Your task to perform on an android device: add a contact Image 0: 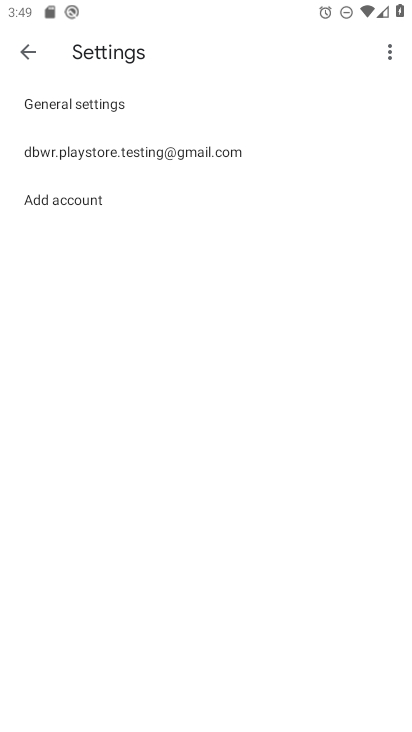
Step 0: press home button
Your task to perform on an android device: add a contact Image 1: 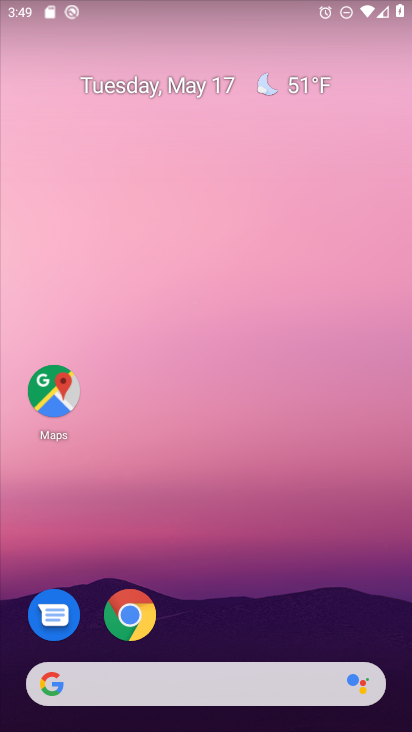
Step 1: drag from (212, 648) to (189, 149)
Your task to perform on an android device: add a contact Image 2: 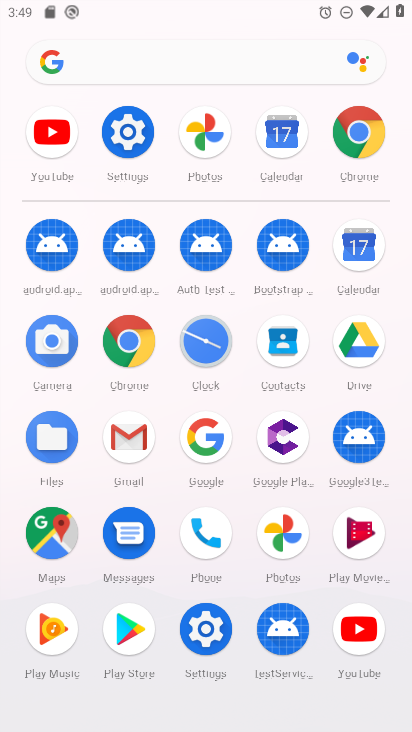
Step 2: click (279, 333)
Your task to perform on an android device: add a contact Image 3: 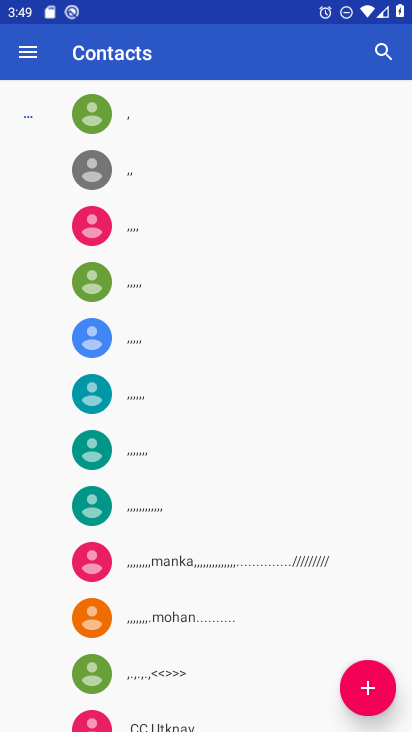
Step 3: click (366, 682)
Your task to perform on an android device: add a contact Image 4: 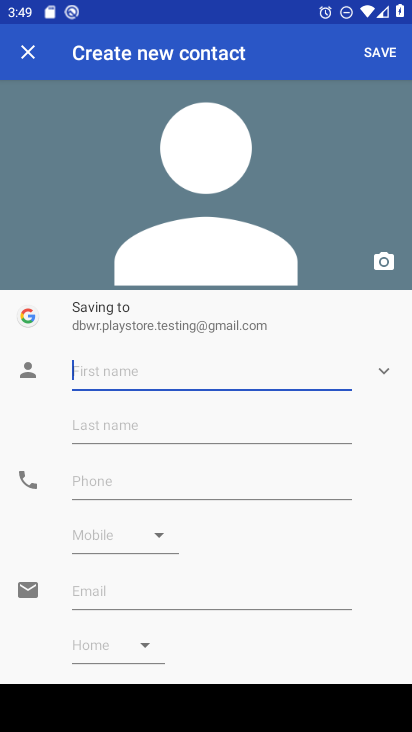
Step 4: type "bcvfd"
Your task to perform on an android device: add a contact Image 5: 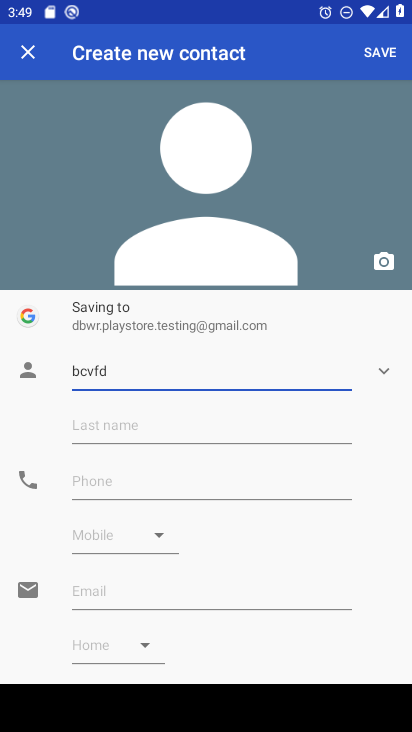
Step 5: click (380, 49)
Your task to perform on an android device: add a contact Image 6: 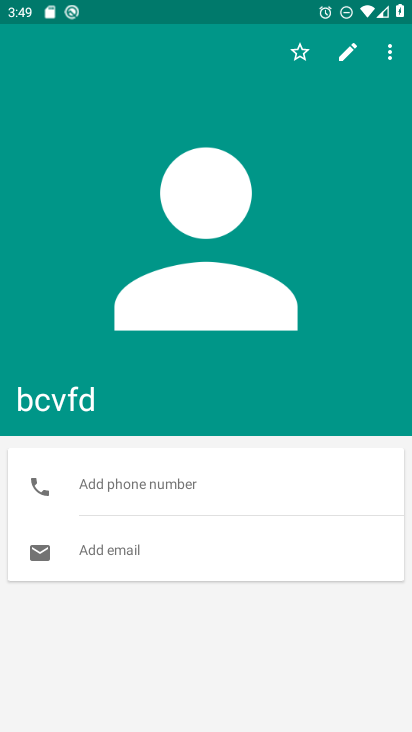
Step 6: task complete